Your task to perform on an android device: turn on wifi Image 0: 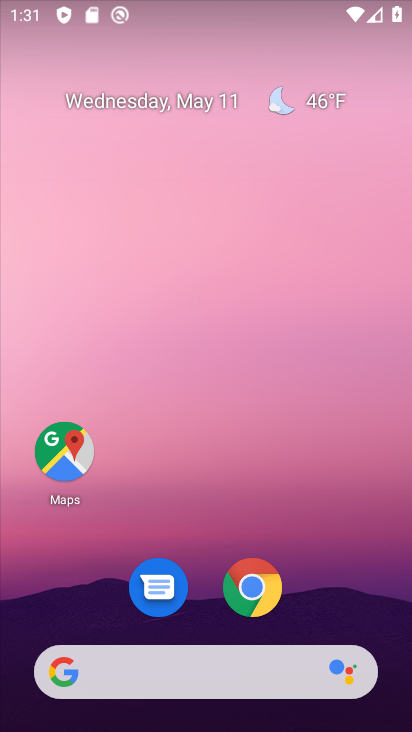
Step 0: press home button
Your task to perform on an android device: turn on wifi Image 1: 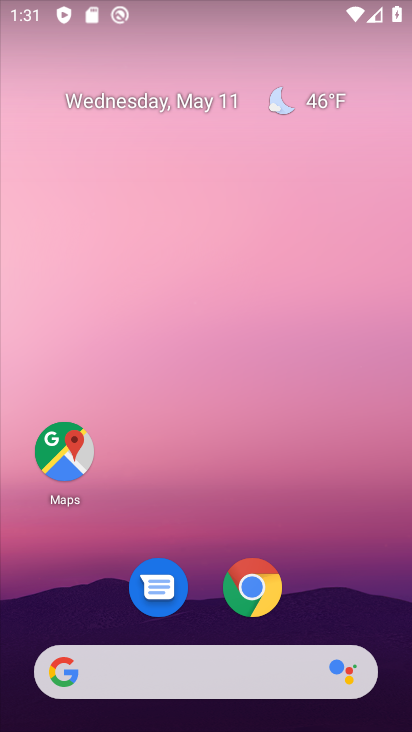
Step 1: task complete